Your task to perform on an android device: toggle javascript in the chrome app Image 0: 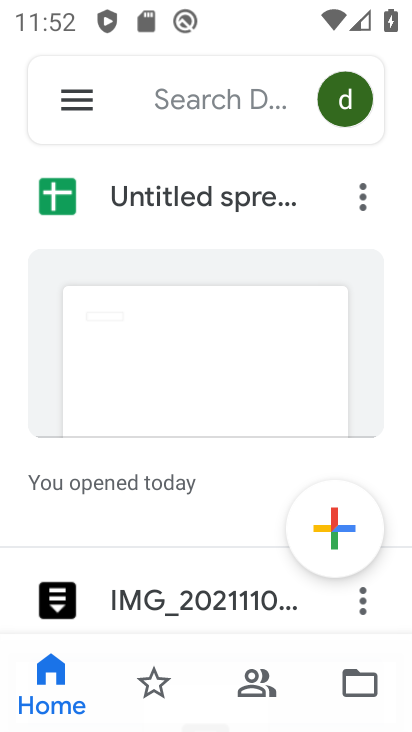
Step 0: press home button
Your task to perform on an android device: toggle javascript in the chrome app Image 1: 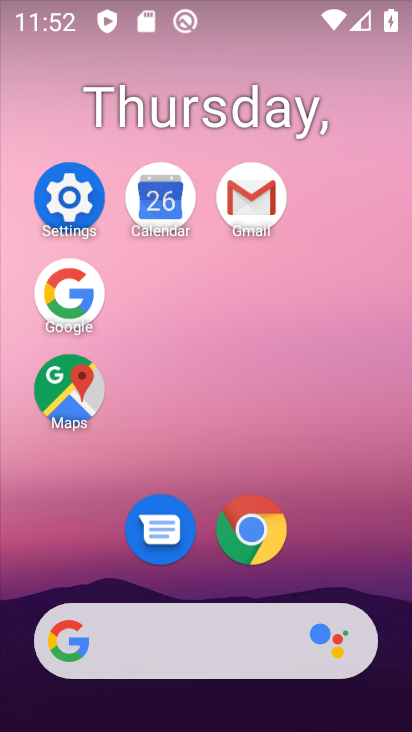
Step 1: click (259, 519)
Your task to perform on an android device: toggle javascript in the chrome app Image 2: 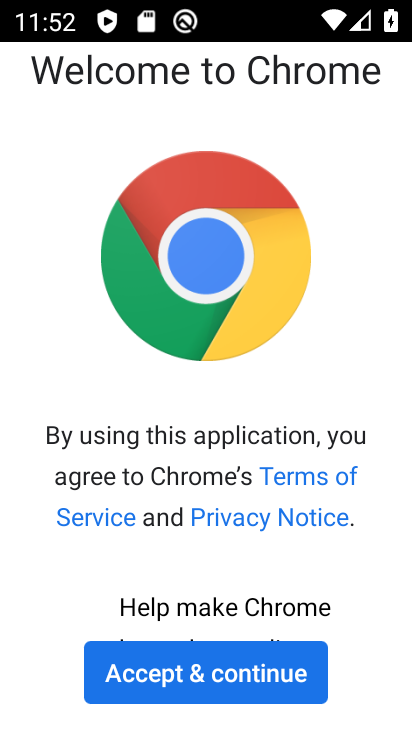
Step 2: click (181, 679)
Your task to perform on an android device: toggle javascript in the chrome app Image 3: 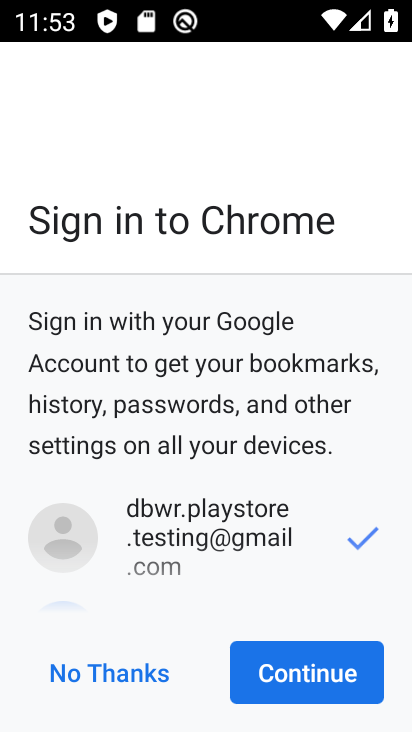
Step 3: click (285, 670)
Your task to perform on an android device: toggle javascript in the chrome app Image 4: 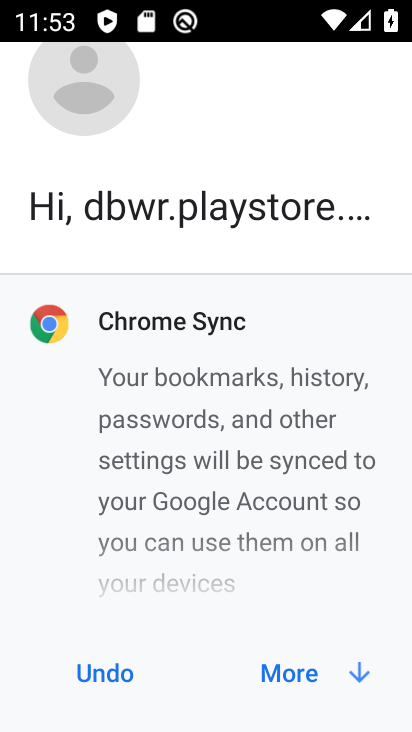
Step 4: click (294, 659)
Your task to perform on an android device: toggle javascript in the chrome app Image 5: 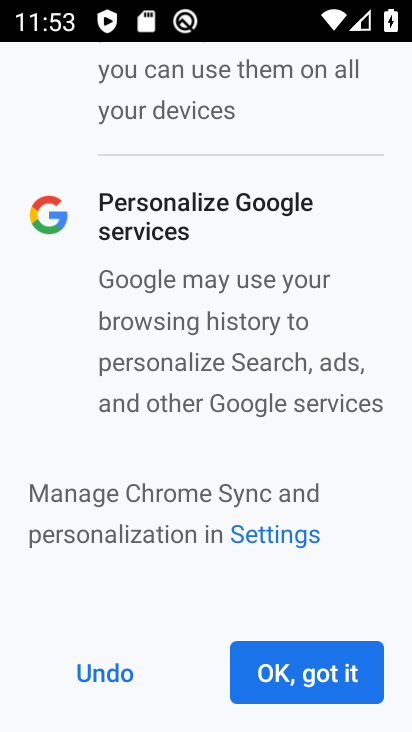
Step 5: click (319, 707)
Your task to perform on an android device: toggle javascript in the chrome app Image 6: 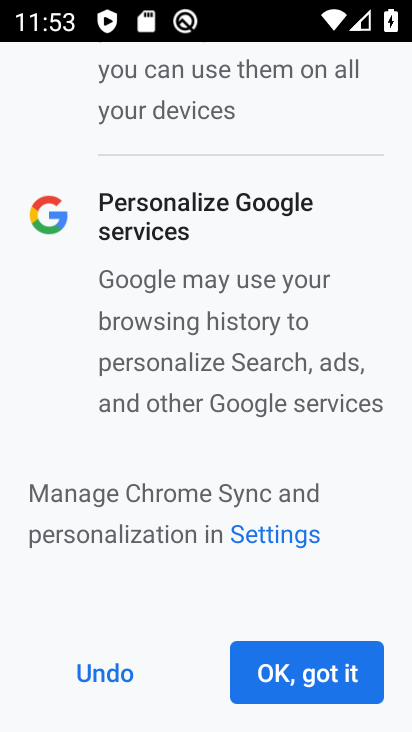
Step 6: click (313, 693)
Your task to perform on an android device: toggle javascript in the chrome app Image 7: 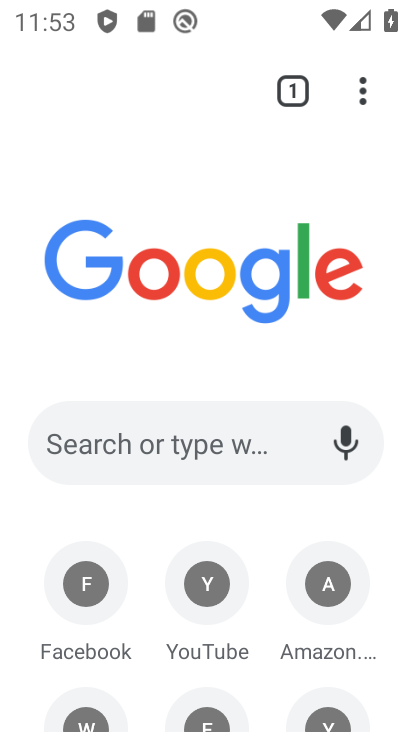
Step 7: click (368, 88)
Your task to perform on an android device: toggle javascript in the chrome app Image 8: 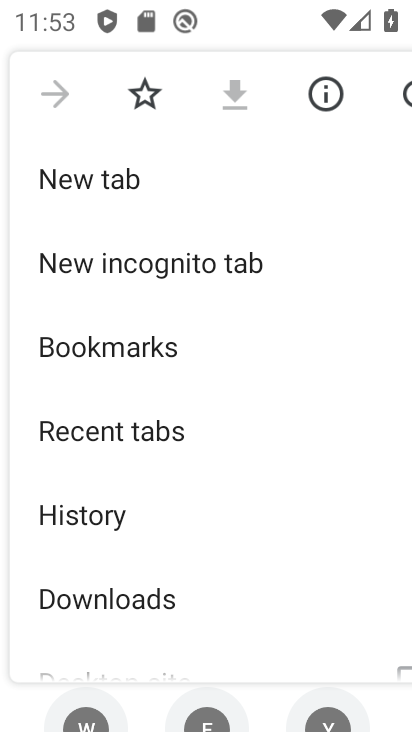
Step 8: drag from (206, 564) to (253, 205)
Your task to perform on an android device: toggle javascript in the chrome app Image 9: 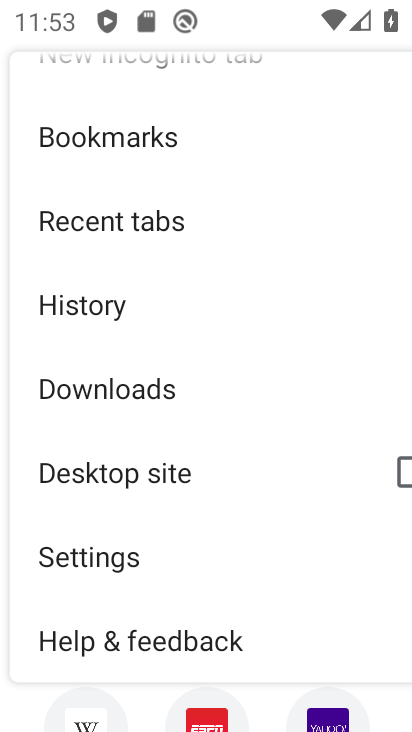
Step 9: click (160, 553)
Your task to perform on an android device: toggle javascript in the chrome app Image 10: 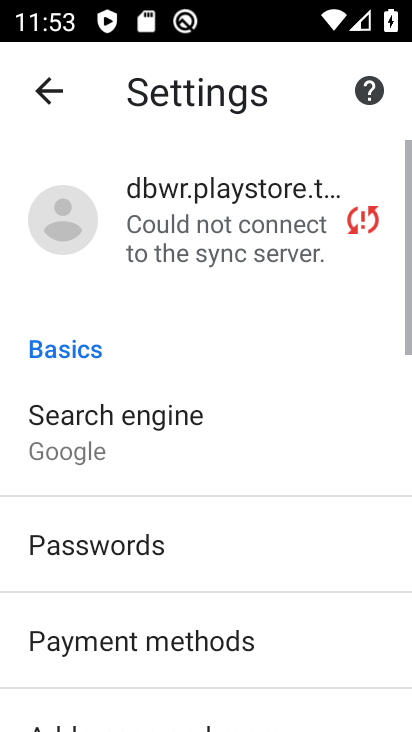
Step 10: drag from (151, 554) to (225, 223)
Your task to perform on an android device: toggle javascript in the chrome app Image 11: 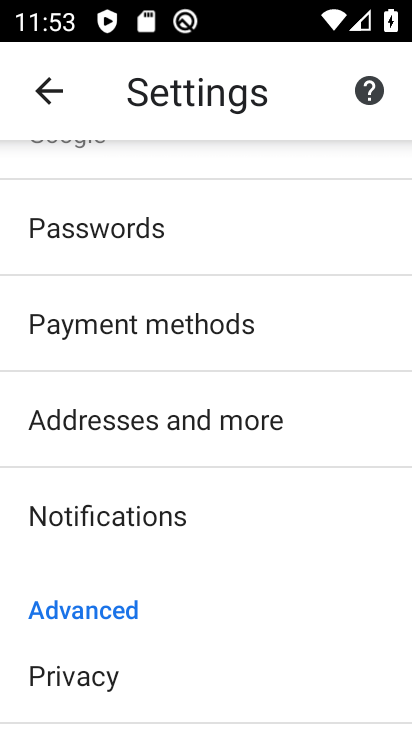
Step 11: drag from (221, 631) to (263, 267)
Your task to perform on an android device: toggle javascript in the chrome app Image 12: 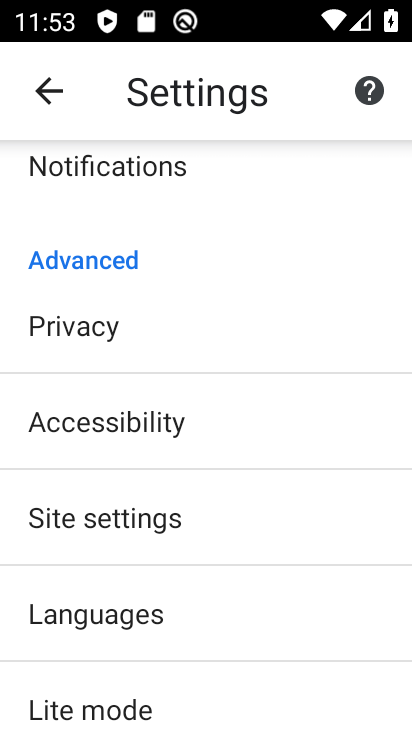
Step 12: click (190, 509)
Your task to perform on an android device: toggle javascript in the chrome app Image 13: 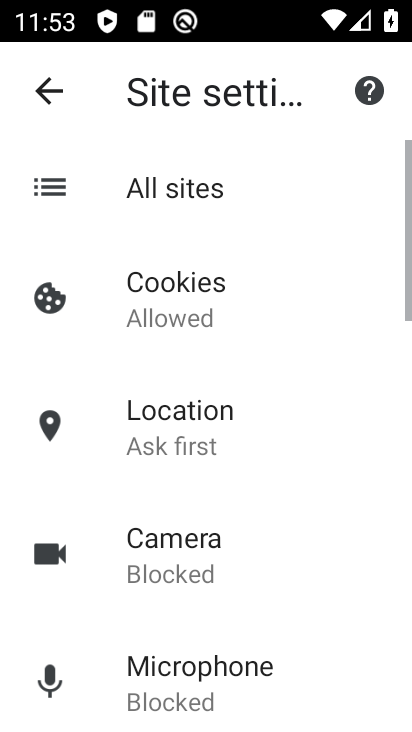
Step 13: drag from (190, 509) to (255, 228)
Your task to perform on an android device: toggle javascript in the chrome app Image 14: 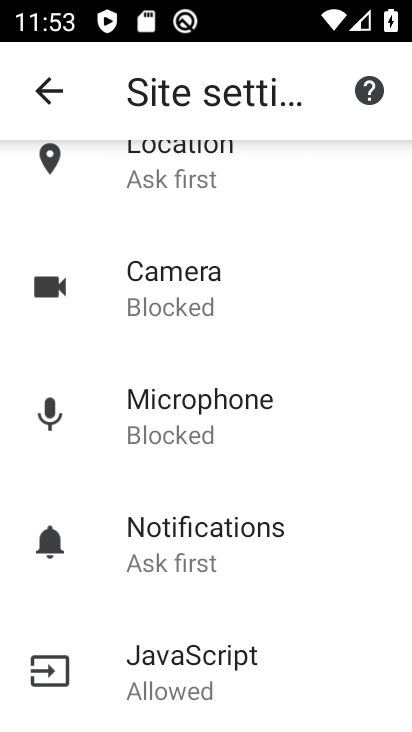
Step 14: click (194, 660)
Your task to perform on an android device: toggle javascript in the chrome app Image 15: 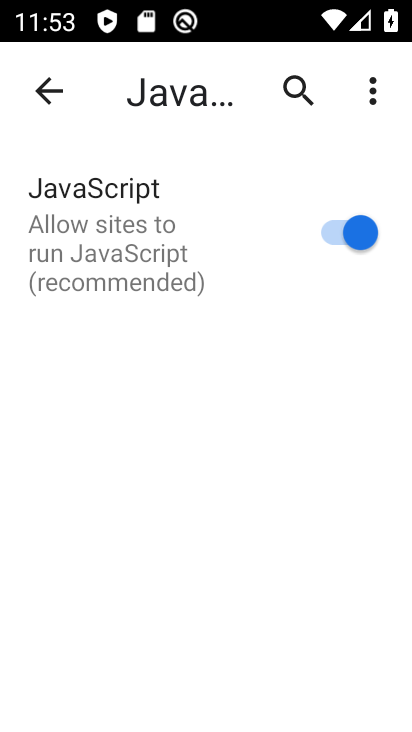
Step 15: click (357, 230)
Your task to perform on an android device: toggle javascript in the chrome app Image 16: 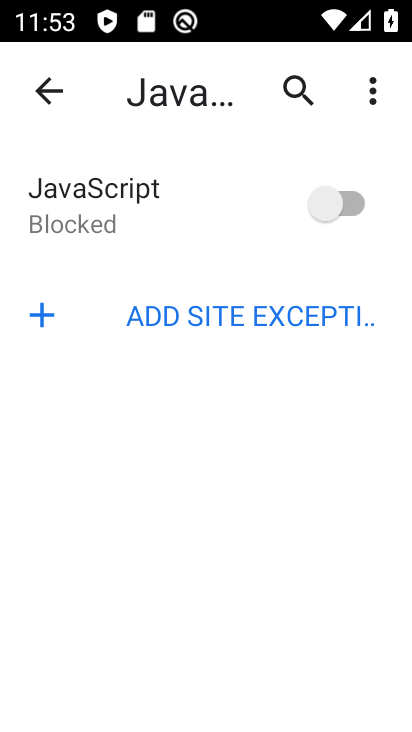
Step 16: task complete